Your task to perform on an android device: Go to Amazon Image 0: 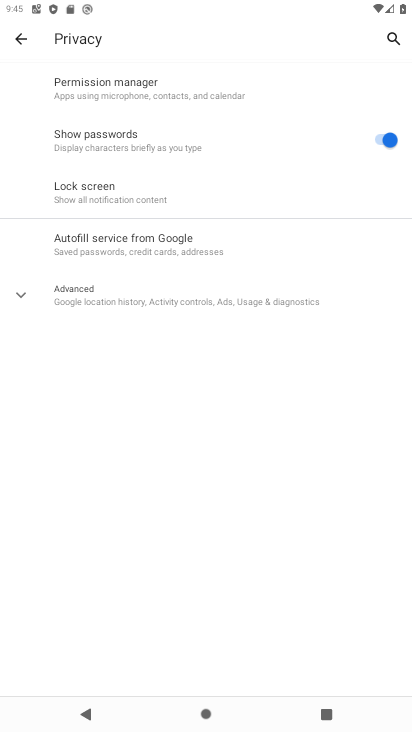
Step 0: press home button
Your task to perform on an android device: Go to Amazon Image 1: 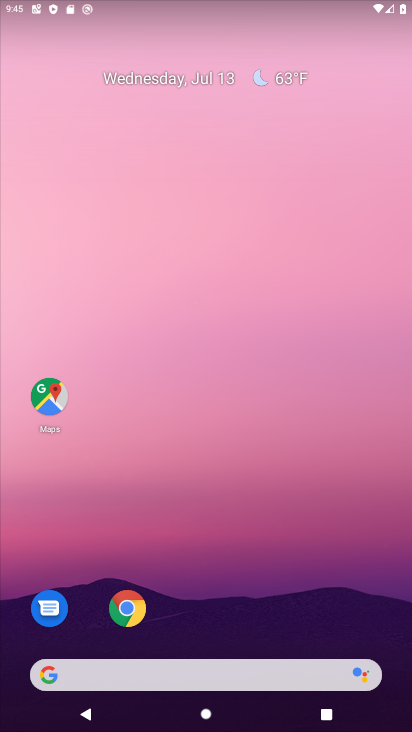
Step 1: click (129, 604)
Your task to perform on an android device: Go to Amazon Image 2: 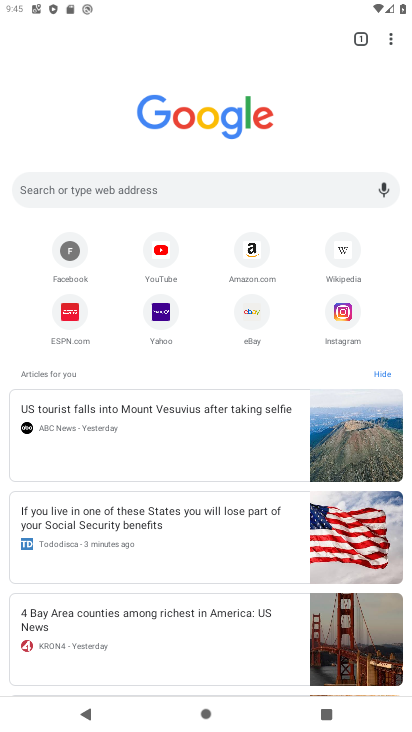
Step 2: click (254, 251)
Your task to perform on an android device: Go to Amazon Image 3: 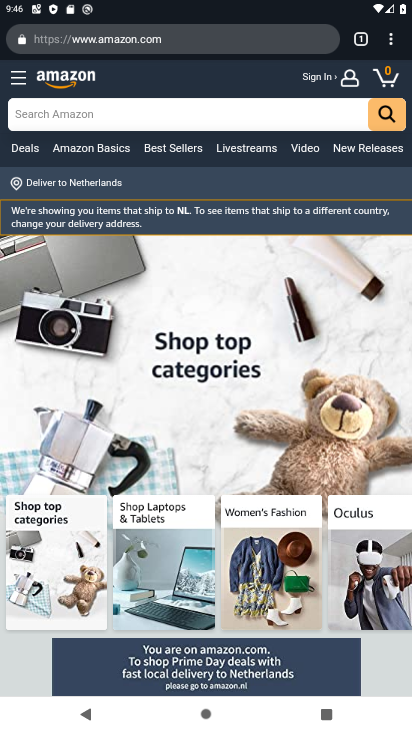
Step 3: task complete